Your task to perform on an android device: turn off improve location accuracy Image 0: 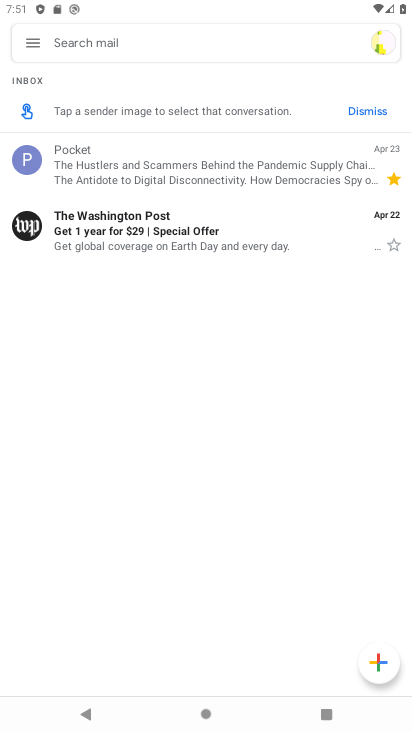
Step 0: press back button
Your task to perform on an android device: turn off improve location accuracy Image 1: 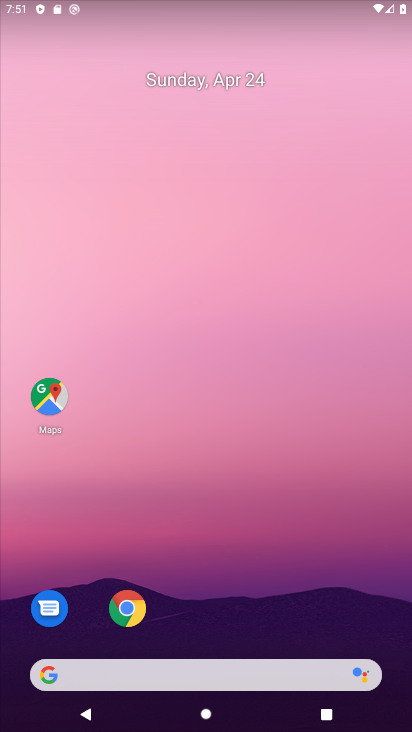
Step 1: drag from (204, 558) to (331, 1)
Your task to perform on an android device: turn off improve location accuracy Image 2: 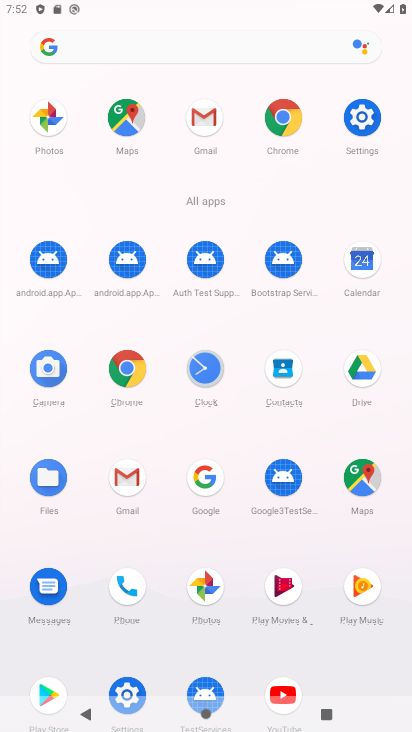
Step 2: click (368, 117)
Your task to perform on an android device: turn off improve location accuracy Image 3: 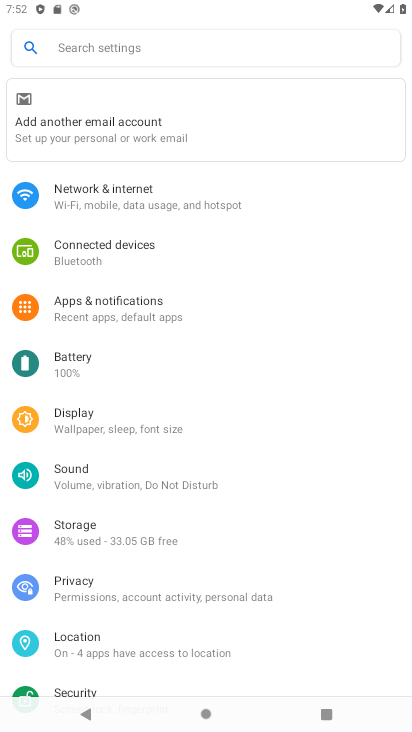
Step 3: drag from (184, 629) to (240, 382)
Your task to perform on an android device: turn off improve location accuracy Image 4: 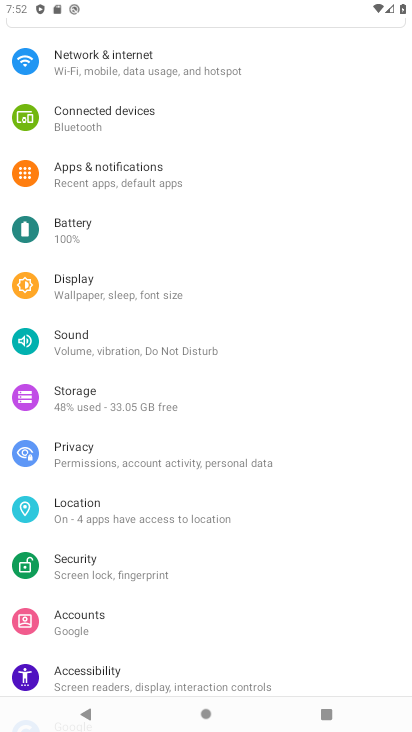
Step 4: click (136, 510)
Your task to perform on an android device: turn off improve location accuracy Image 5: 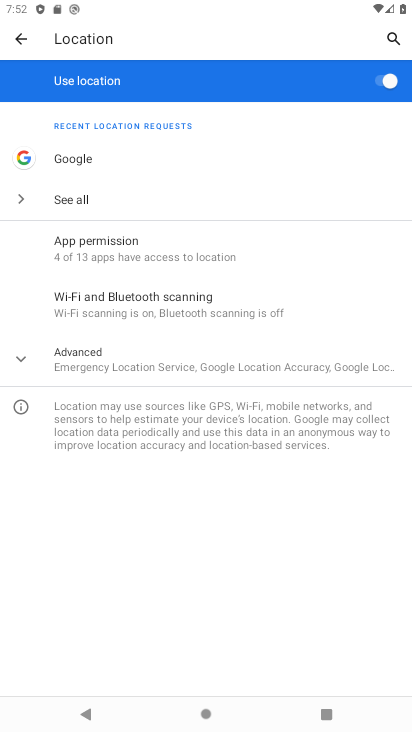
Step 5: click (216, 374)
Your task to perform on an android device: turn off improve location accuracy Image 6: 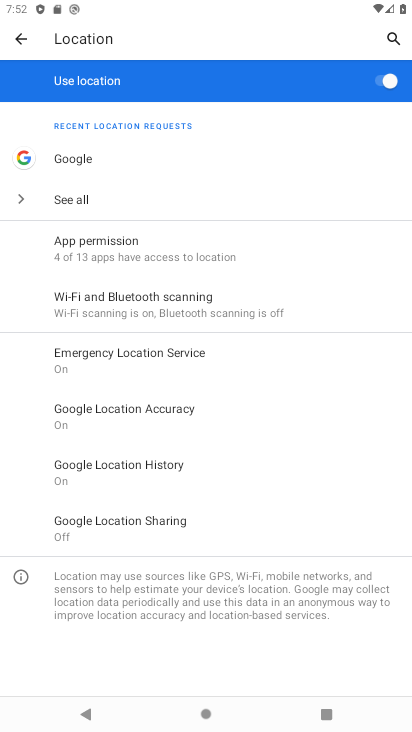
Step 6: click (189, 411)
Your task to perform on an android device: turn off improve location accuracy Image 7: 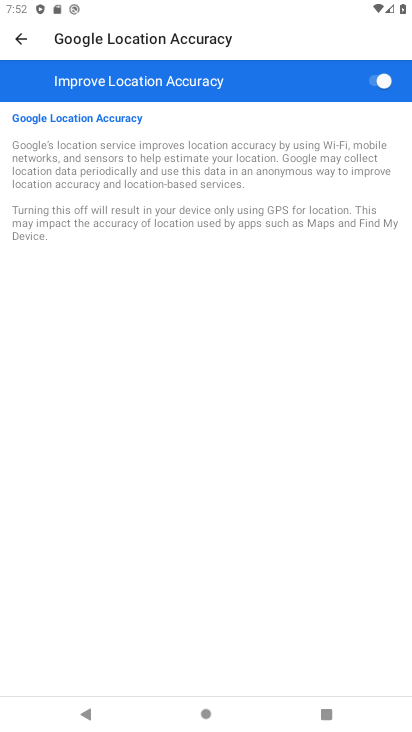
Step 7: click (372, 73)
Your task to perform on an android device: turn off improve location accuracy Image 8: 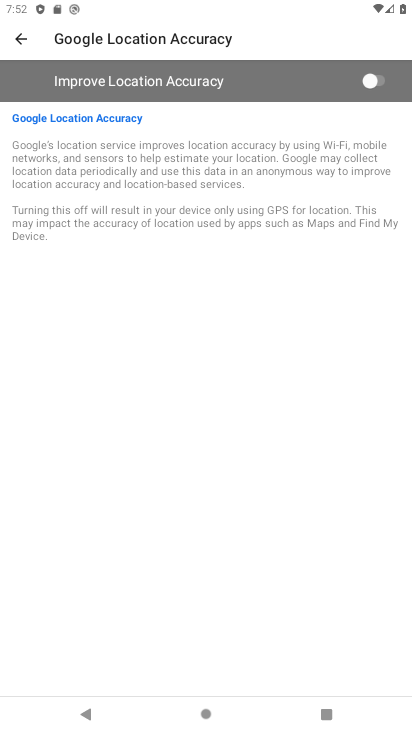
Step 8: task complete